Your task to perform on an android device: all mails in gmail Image 0: 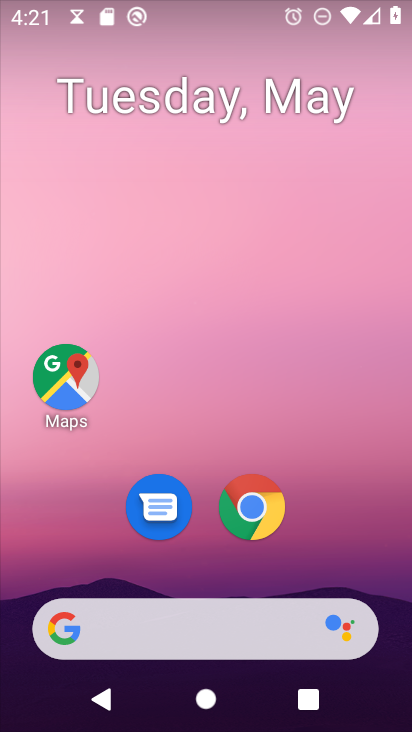
Step 0: drag from (210, 545) to (267, 11)
Your task to perform on an android device: all mails in gmail Image 1: 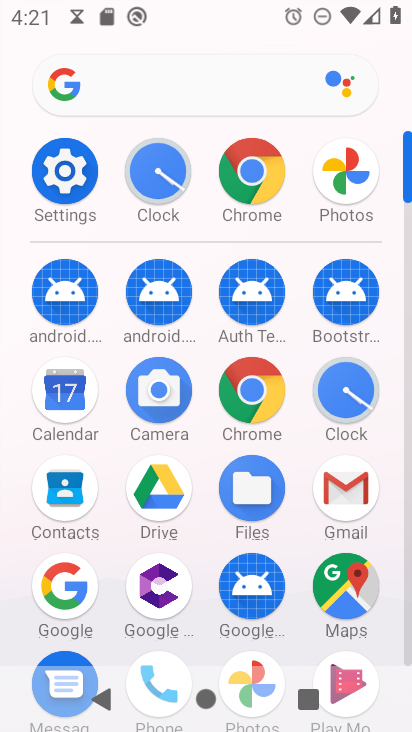
Step 1: click (359, 482)
Your task to perform on an android device: all mails in gmail Image 2: 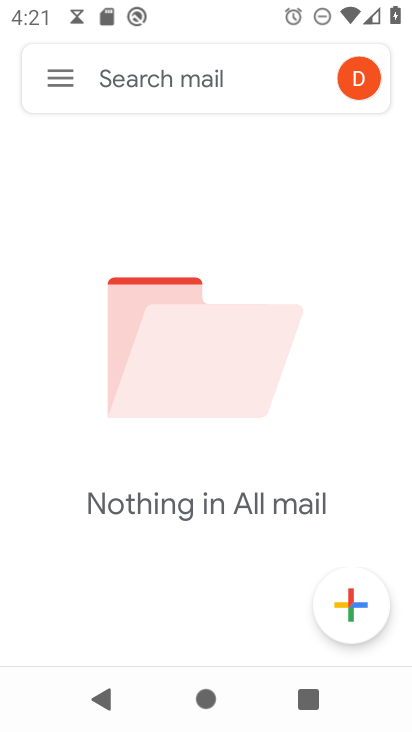
Step 2: click (44, 85)
Your task to perform on an android device: all mails in gmail Image 3: 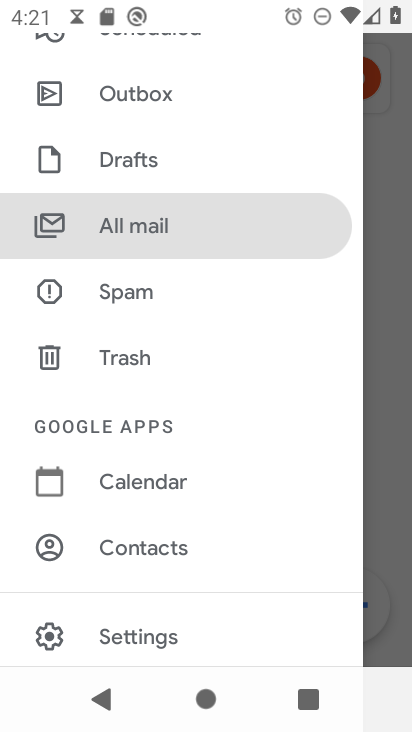
Step 3: click (146, 245)
Your task to perform on an android device: all mails in gmail Image 4: 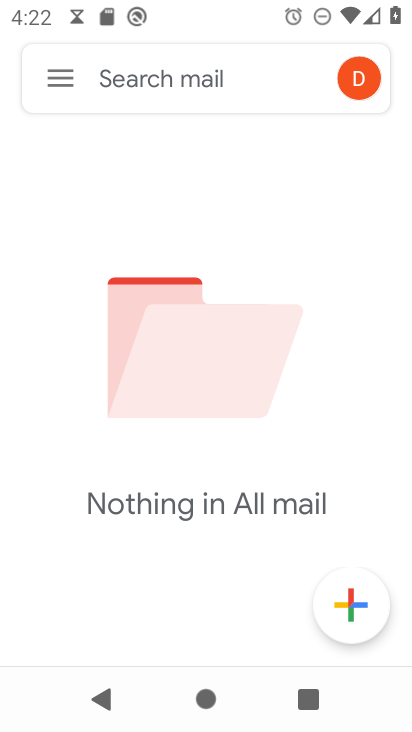
Step 4: task complete